Your task to perform on an android device: show emergency info Image 0: 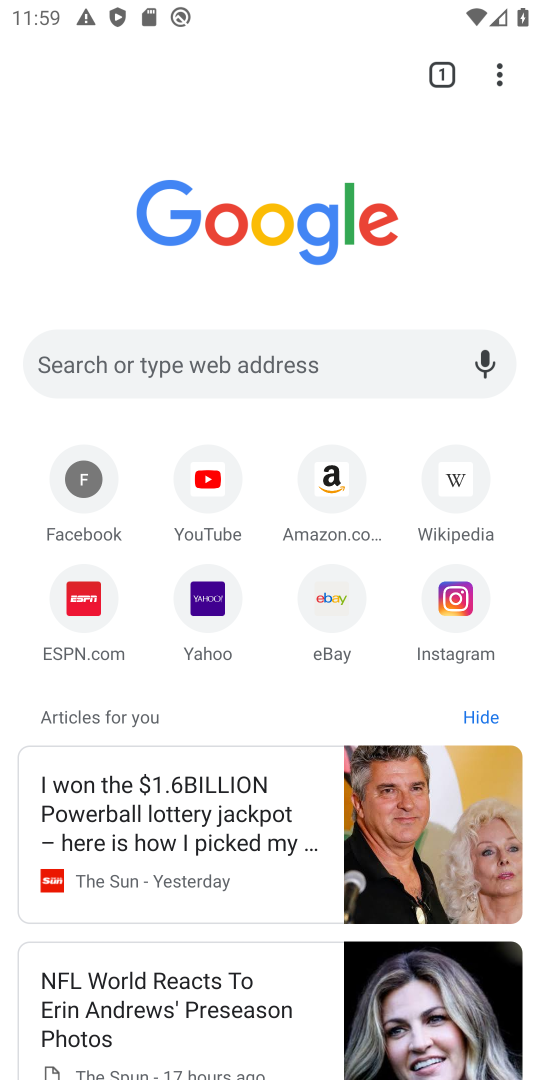
Step 0: press home button
Your task to perform on an android device: show emergency info Image 1: 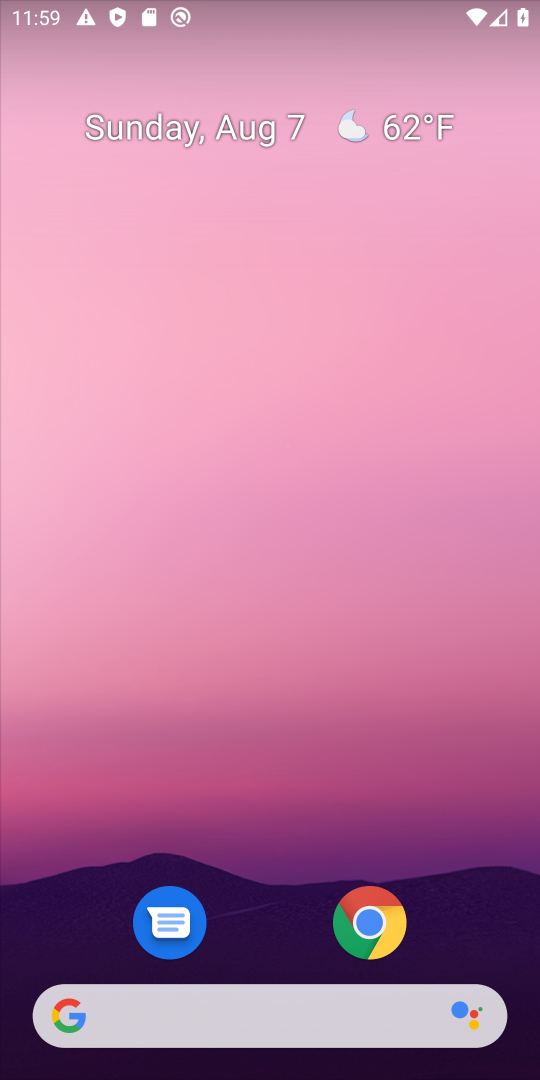
Step 1: drag from (530, 846) to (445, 230)
Your task to perform on an android device: show emergency info Image 2: 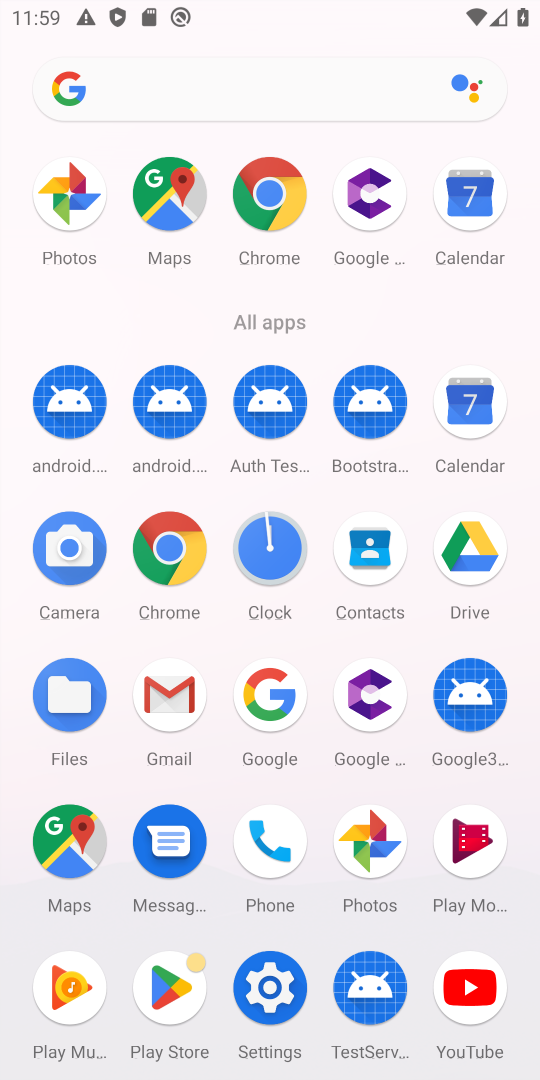
Step 2: click (270, 991)
Your task to perform on an android device: show emergency info Image 3: 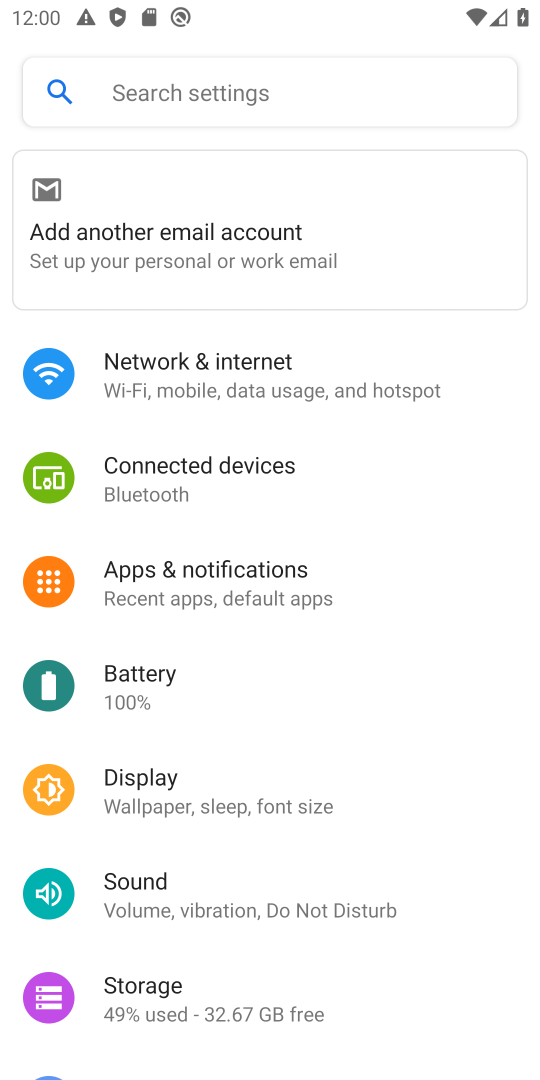
Step 3: drag from (485, 952) to (452, 461)
Your task to perform on an android device: show emergency info Image 4: 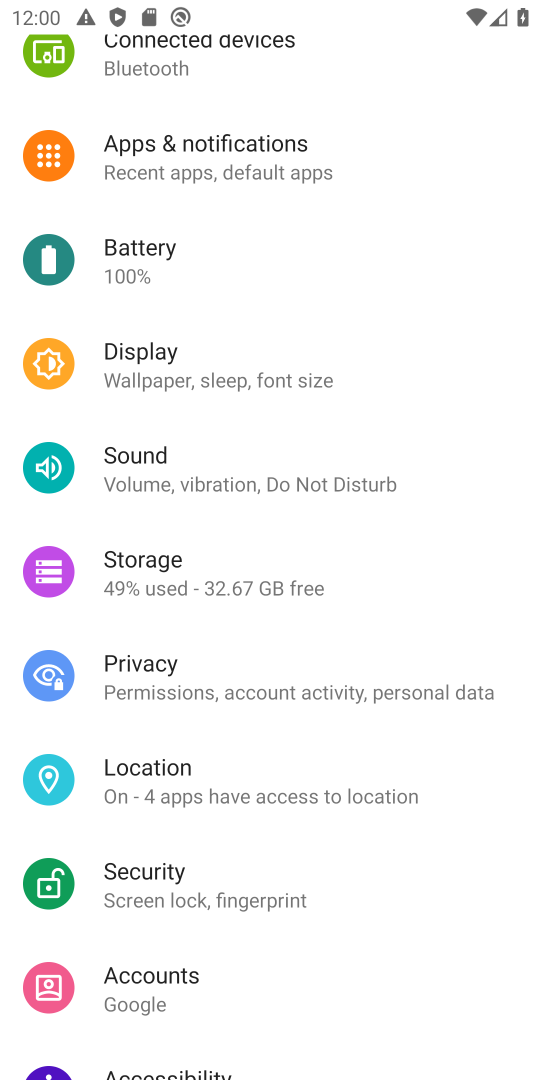
Step 4: drag from (286, 915) to (244, 283)
Your task to perform on an android device: show emergency info Image 5: 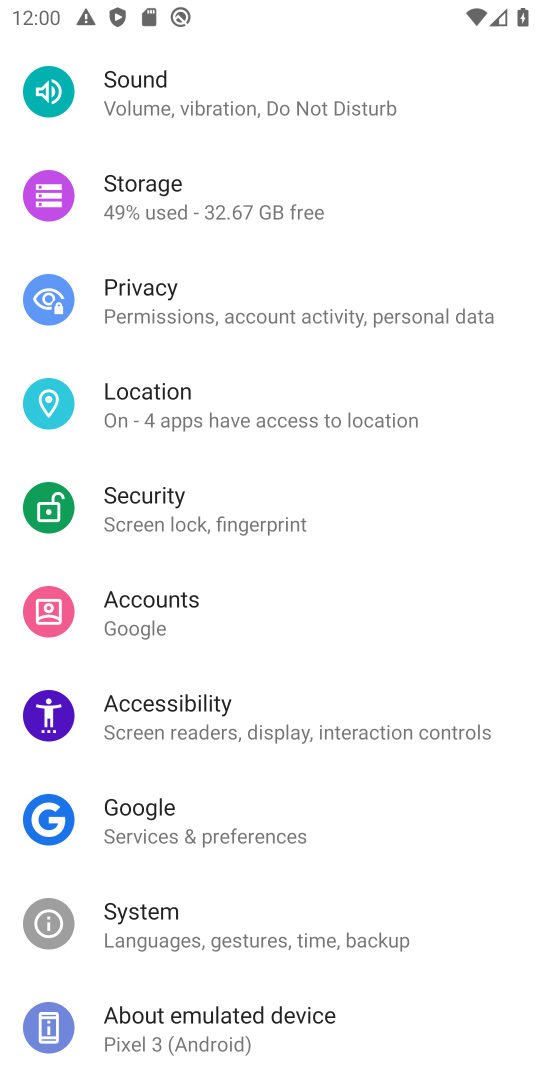
Step 5: drag from (324, 938) to (244, 283)
Your task to perform on an android device: show emergency info Image 6: 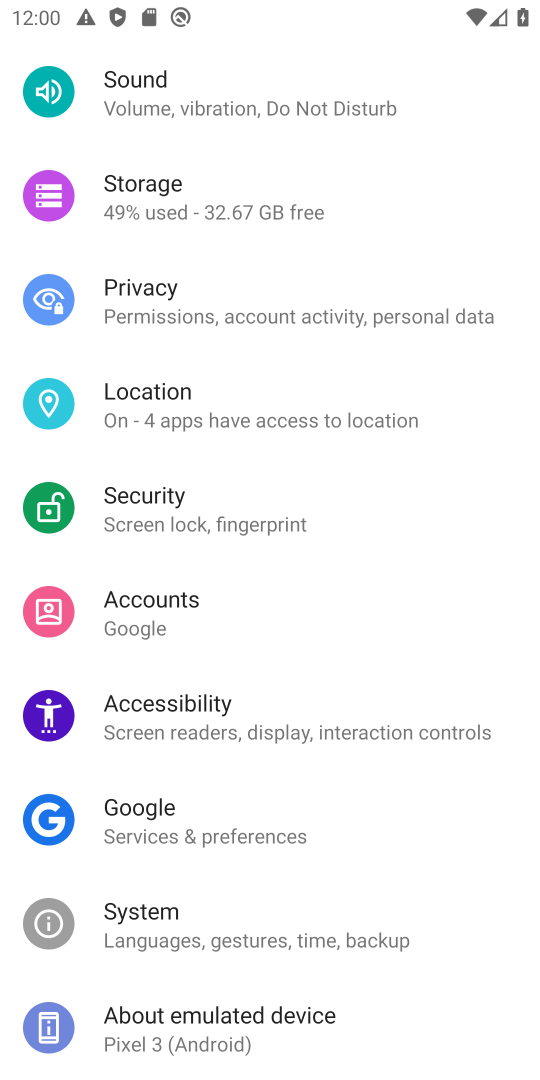
Step 6: click (276, 1042)
Your task to perform on an android device: show emergency info Image 7: 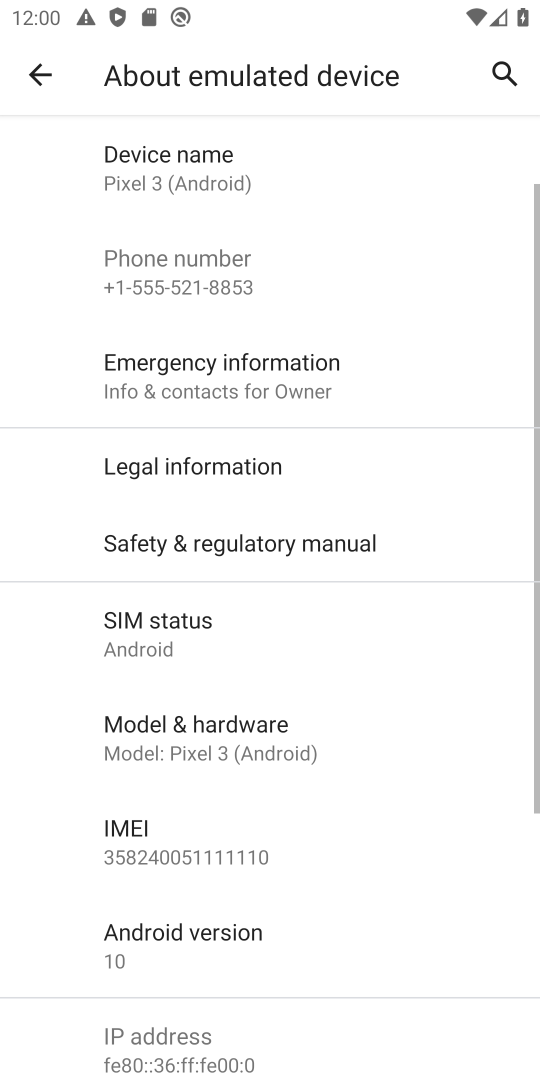
Step 7: click (306, 366)
Your task to perform on an android device: show emergency info Image 8: 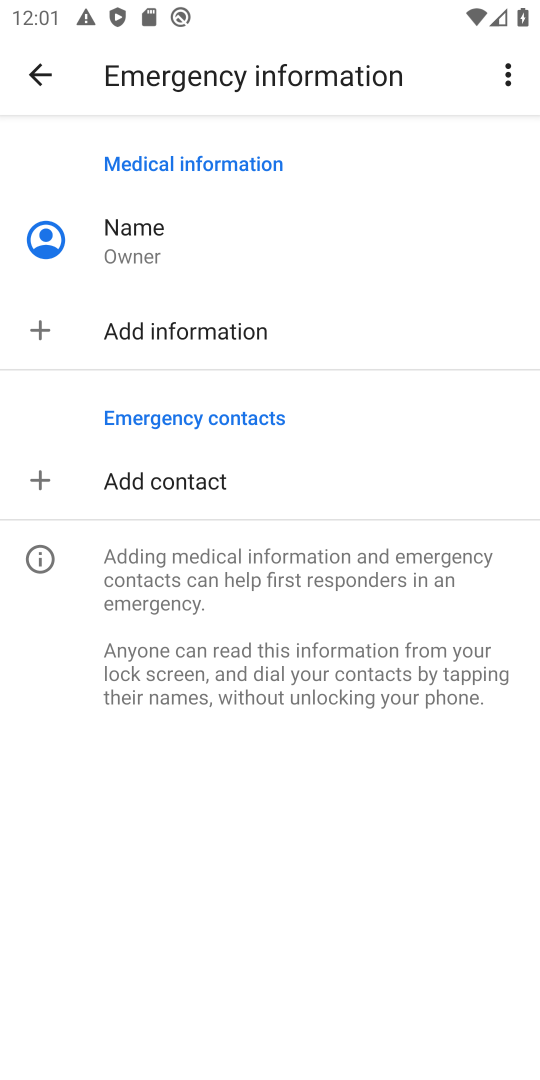
Step 8: task complete